Your task to perform on an android device: change the clock display to show seconds Image 0: 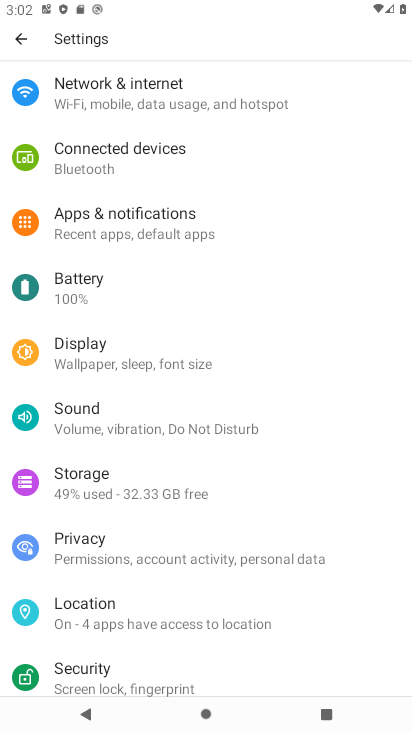
Step 0: press home button
Your task to perform on an android device: change the clock display to show seconds Image 1: 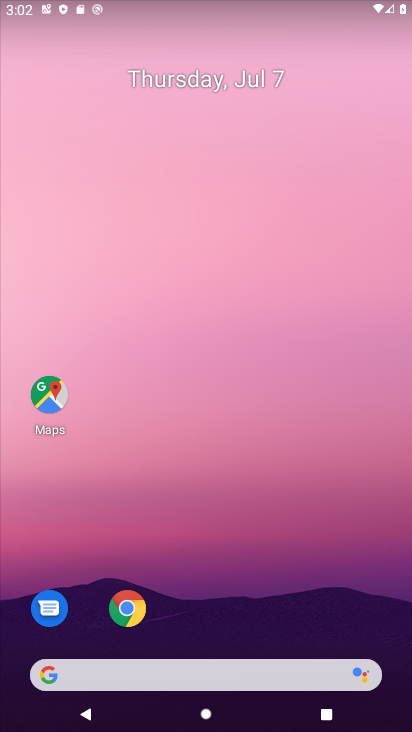
Step 1: drag from (340, 598) to (313, 53)
Your task to perform on an android device: change the clock display to show seconds Image 2: 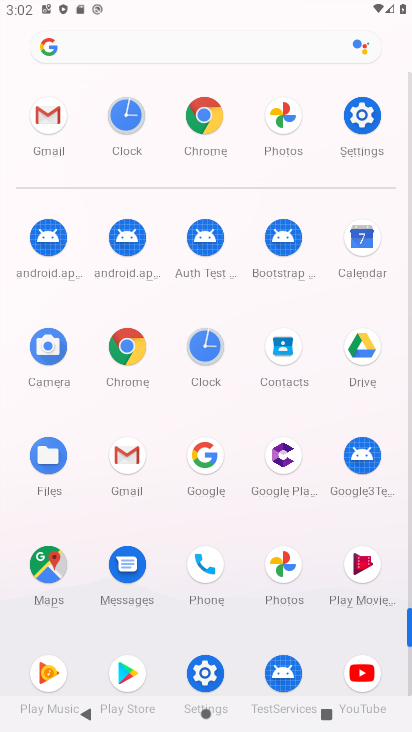
Step 2: click (206, 349)
Your task to perform on an android device: change the clock display to show seconds Image 3: 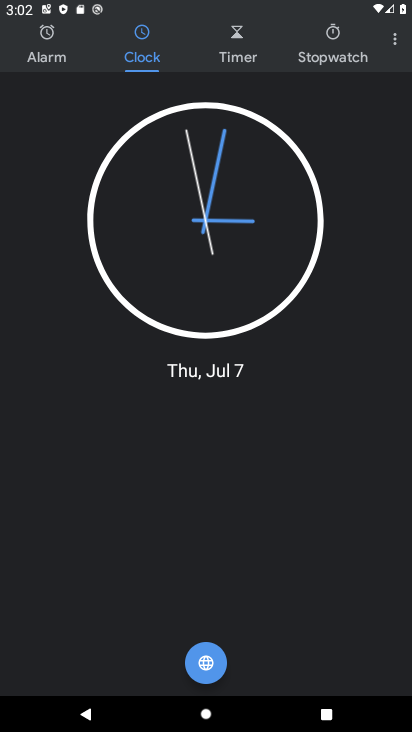
Step 3: click (395, 48)
Your task to perform on an android device: change the clock display to show seconds Image 4: 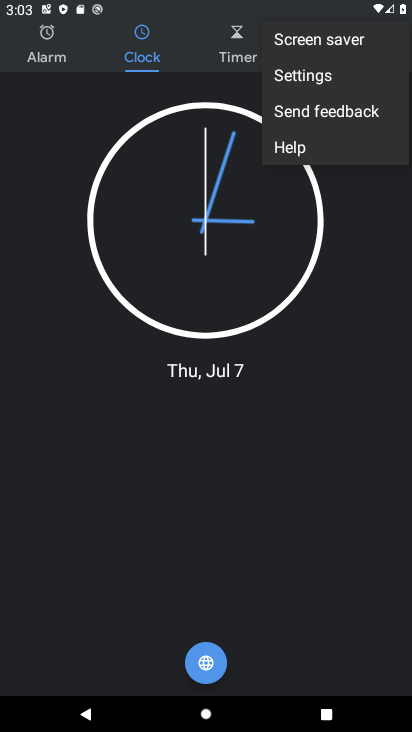
Step 4: click (302, 80)
Your task to perform on an android device: change the clock display to show seconds Image 5: 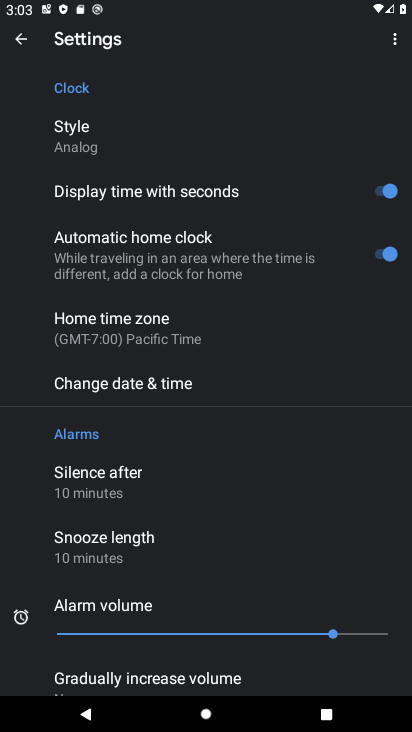
Step 5: task complete